Your task to perform on an android device: open device folders in google photos Image 0: 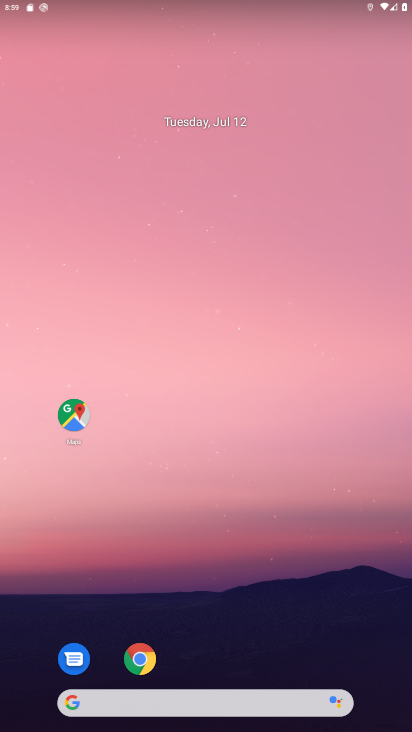
Step 0: drag from (262, 633) to (271, 54)
Your task to perform on an android device: open device folders in google photos Image 1: 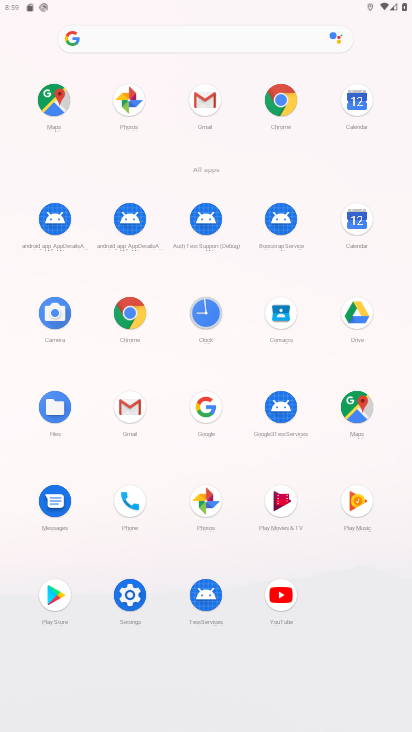
Step 1: click (197, 500)
Your task to perform on an android device: open device folders in google photos Image 2: 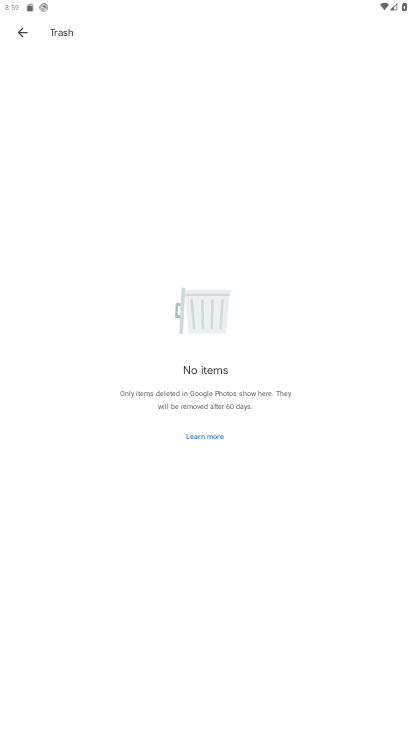
Step 2: click (25, 28)
Your task to perform on an android device: open device folders in google photos Image 3: 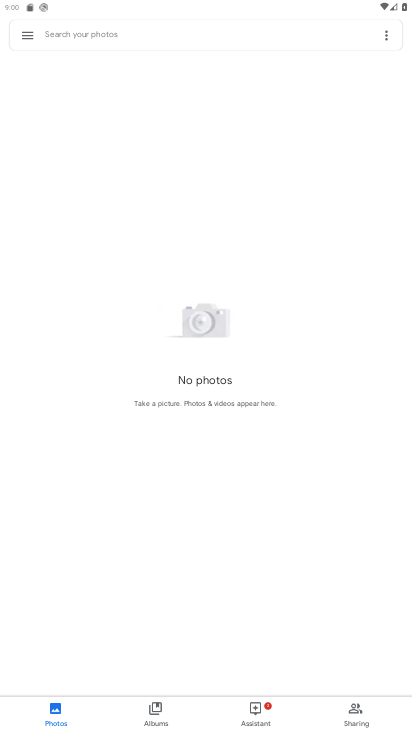
Step 3: click (13, 29)
Your task to perform on an android device: open device folders in google photos Image 4: 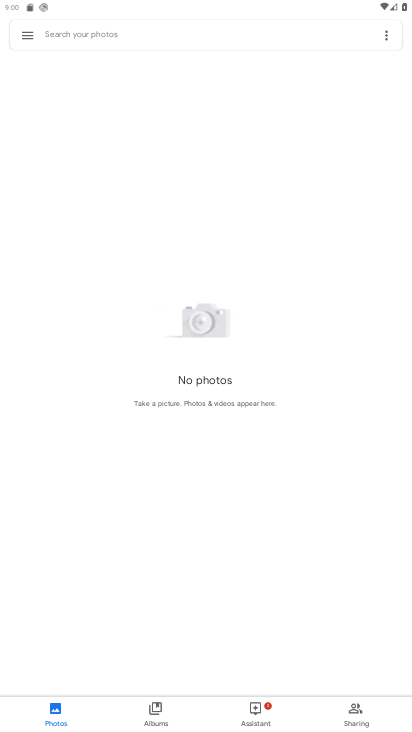
Step 4: click (23, 35)
Your task to perform on an android device: open device folders in google photos Image 5: 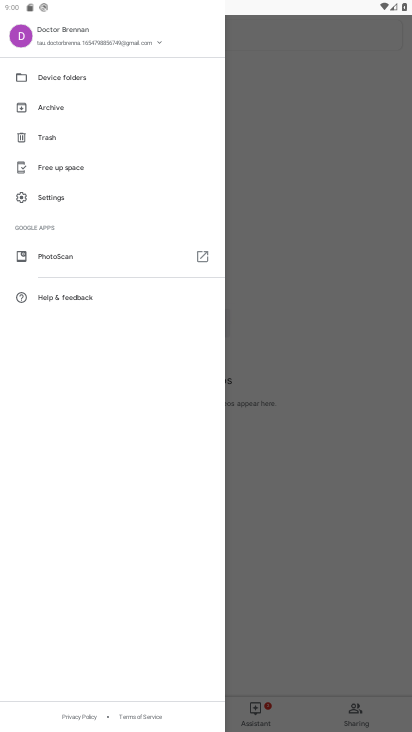
Step 5: click (64, 73)
Your task to perform on an android device: open device folders in google photos Image 6: 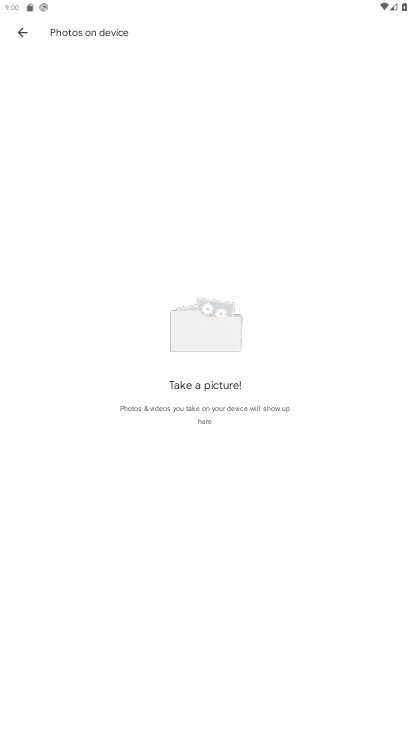
Step 6: task complete